Your task to perform on an android device: Do I have any events tomorrow? Image 0: 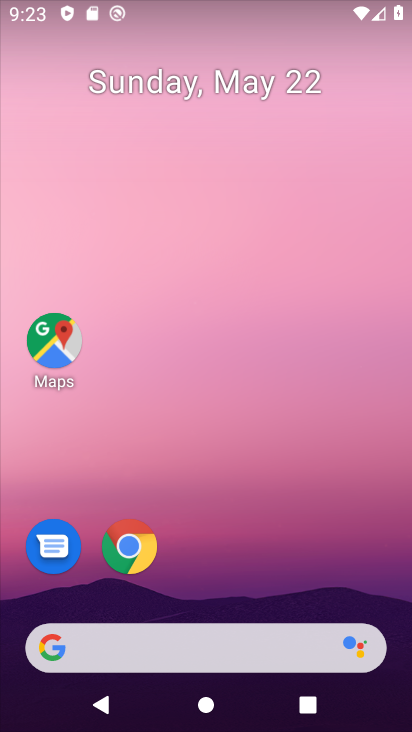
Step 0: drag from (257, 583) to (244, 114)
Your task to perform on an android device: Do I have any events tomorrow? Image 1: 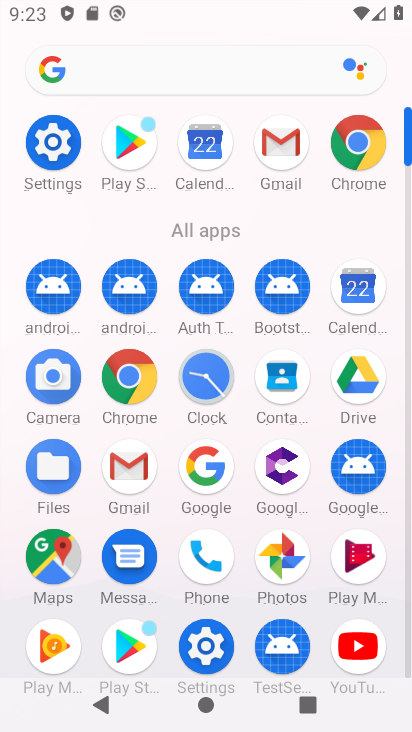
Step 1: click (358, 312)
Your task to perform on an android device: Do I have any events tomorrow? Image 2: 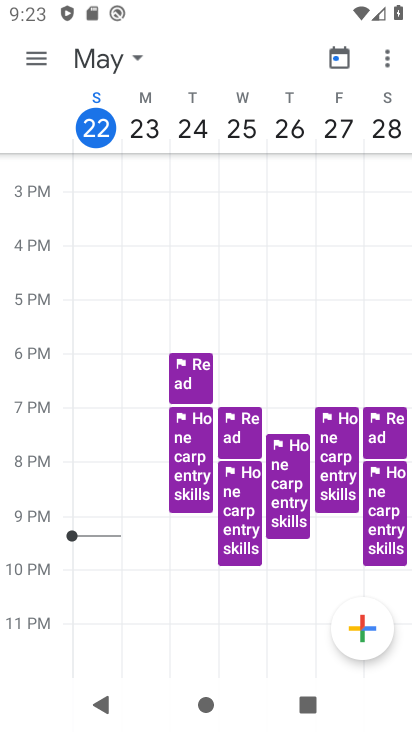
Step 2: click (33, 60)
Your task to perform on an android device: Do I have any events tomorrow? Image 3: 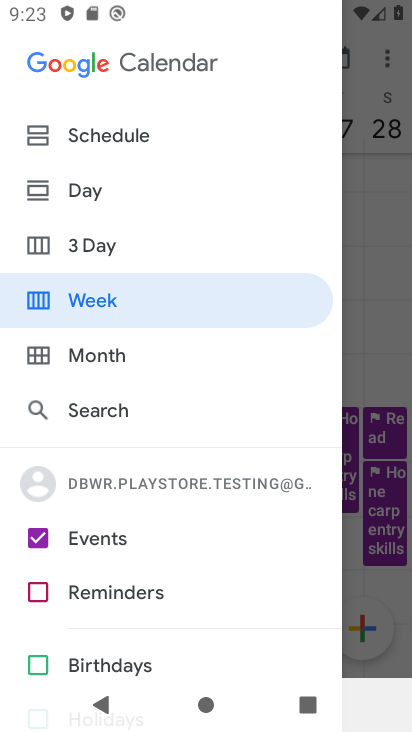
Step 3: click (85, 126)
Your task to perform on an android device: Do I have any events tomorrow? Image 4: 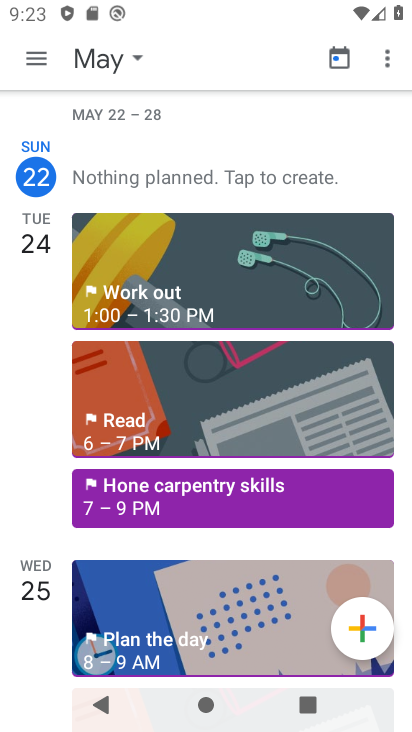
Step 4: click (112, 70)
Your task to perform on an android device: Do I have any events tomorrow? Image 5: 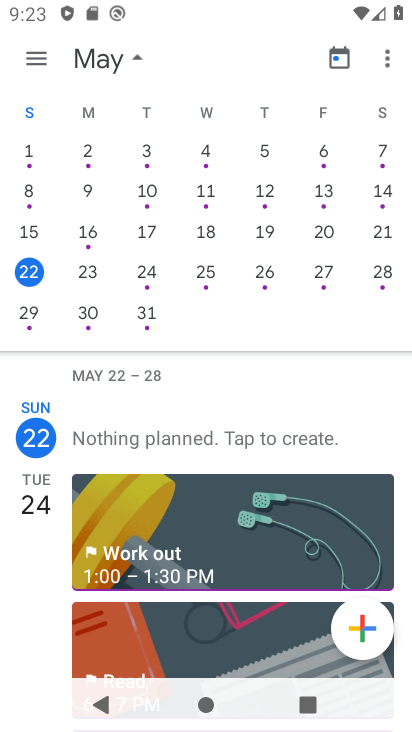
Step 5: click (143, 282)
Your task to perform on an android device: Do I have any events tomorrow? Image 6: 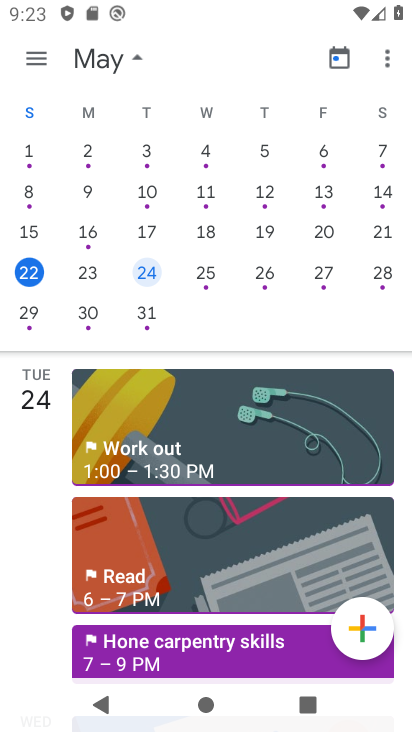
Step 6: click (131, 84)
Your task to perform on an android device: Do I have any events tomorrow? Image 7: 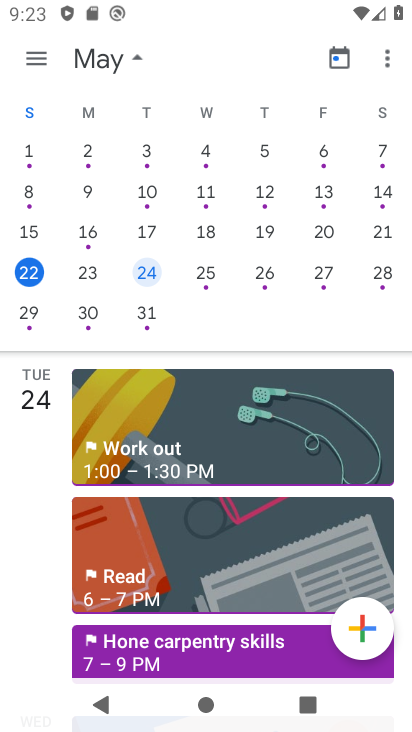
Step 7: click (130, 66)
Your task to perform on an android device: Do I have any events tomorrow? Image 8: 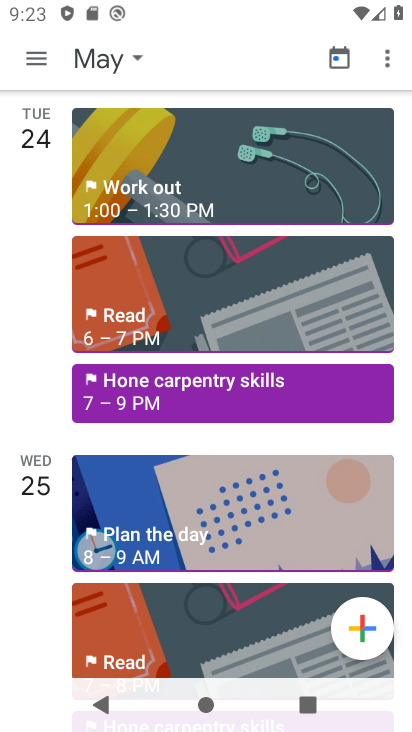
Step 8: task complete